Your task to perform on an android device: Turn off the flashlight Image 0: 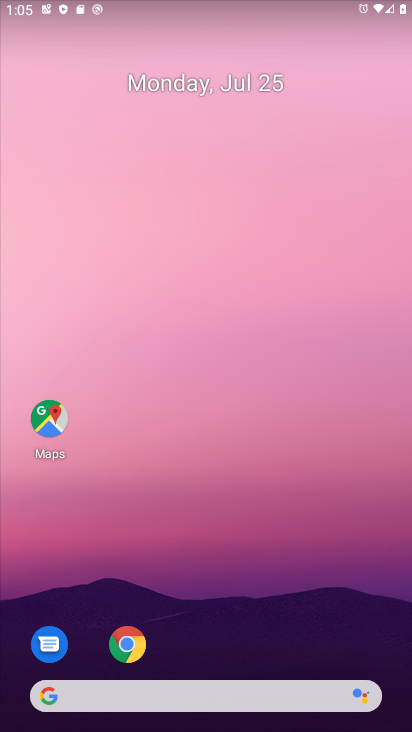
Step 0: drag from (354, 623) to (257, 0)
Your task to perform on an android device: Turn off the flashlight Image 1: 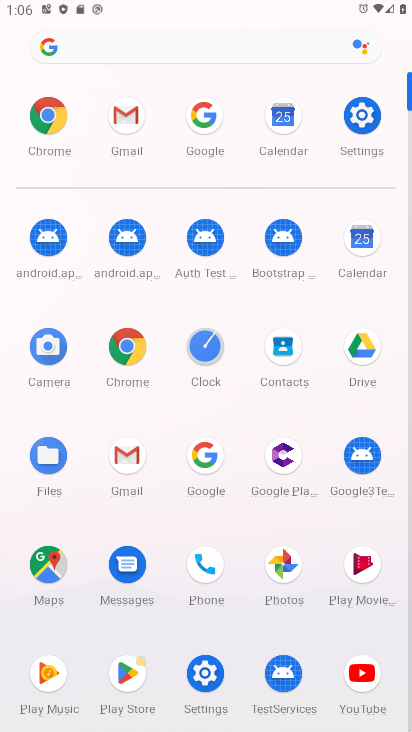
Step 1: click (209, 677)
Your task to perform on an android device: Turn off the flashlight Image 2: 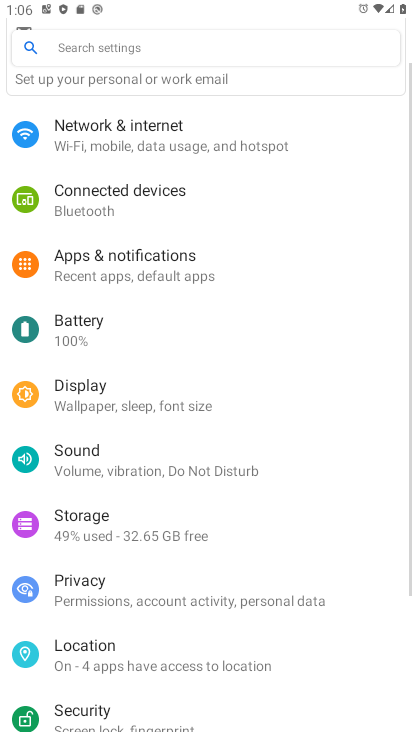
Step 2: task complete